Your task to perform on an android device: turn off smart reply in the gmail app Image 0: 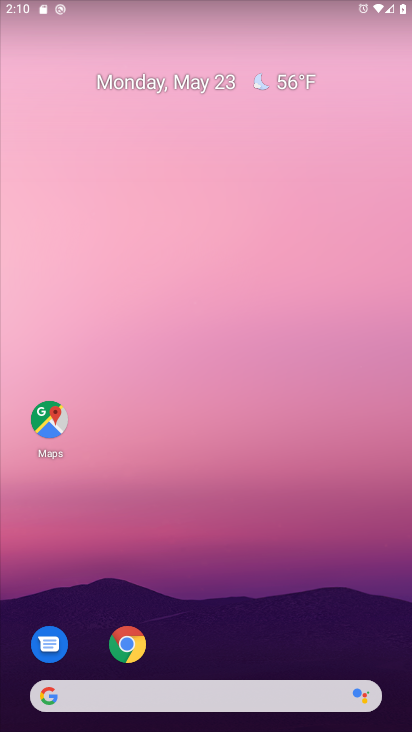
Step 0: drag from (188, 648) to (241, 0)
Your task to perform on an android device: turn off smart reply in the gmail app Image 1: 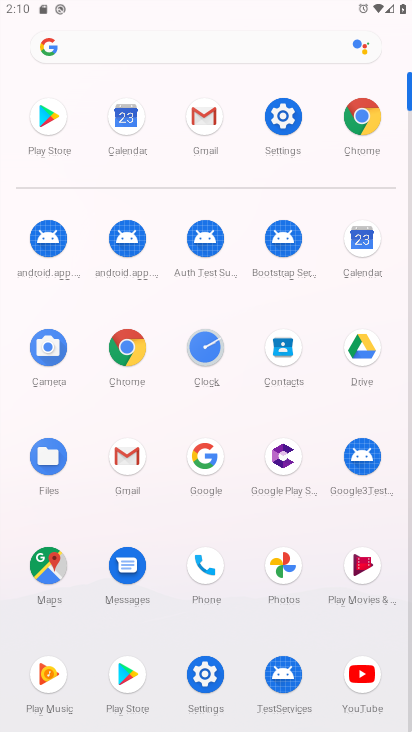
Step 1: press home button
Your task to perform on an android device: turn off smart reply in the gmail app Image 2: 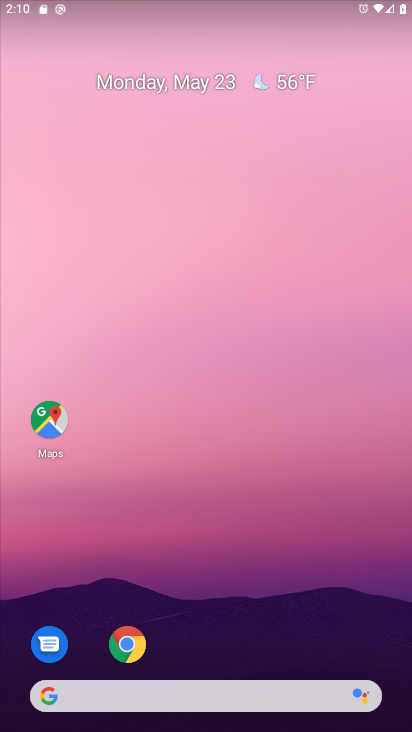
Step 2: drag from (190, 637) to (322, 0)
Your task to perform on an android device: turn off smart reply in the gmail app Image 3: 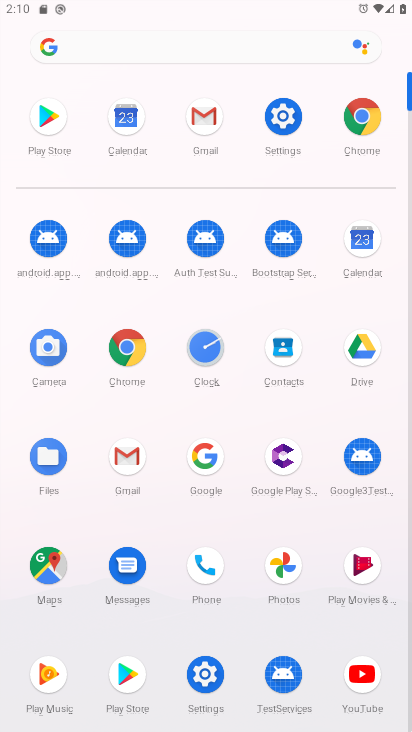
Step 3: click (130, 460)
Your task to perform on an android device: turn off smart reply in the gmail app Image 4: 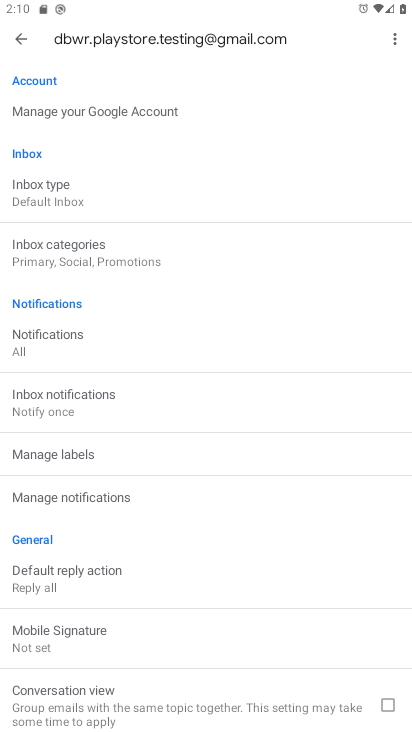
Step 4: drag from (159, 607) to (153, 310)
Your task to perform on an android device: turn off smart reply in the gmail app Image 5: 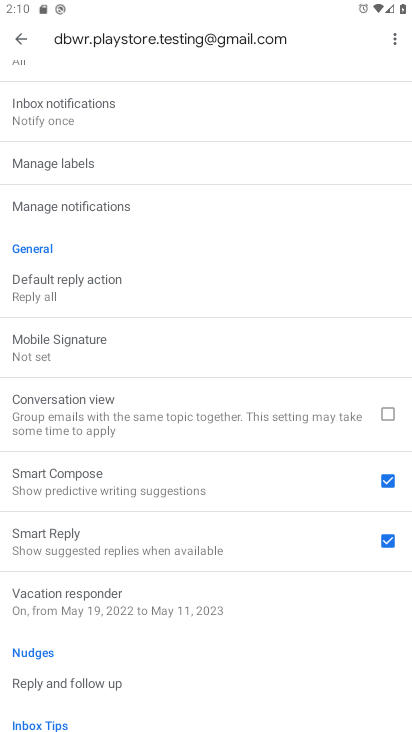
Step 5: click (390, 486)
Your task to perform on an android device: turn off smart reply in the gmail app Image 6: 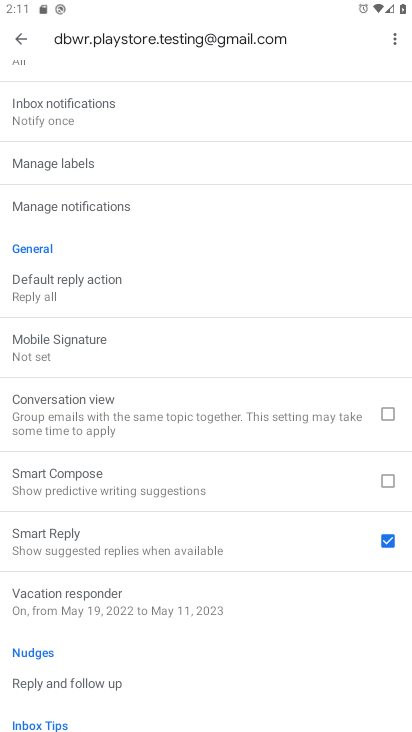
Step 6: task complete